Your task to perform on an android device: stop showing notifications on the lock screen Image 0: 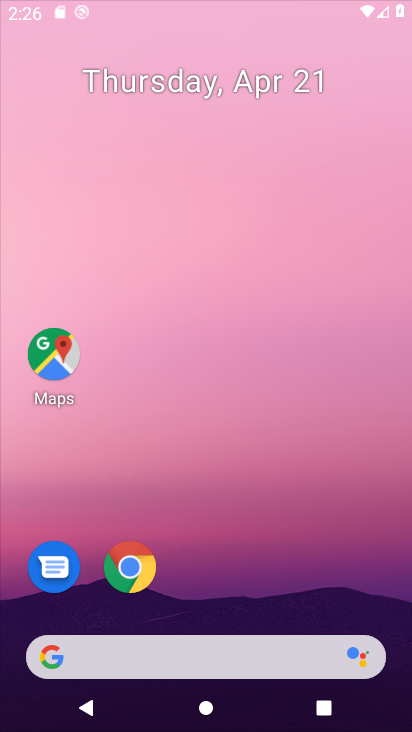
Step 0: drag from (197, 90) to (191, 56)
Your task to perform on an android device: stop showing notifications on the lock screen Image 1: 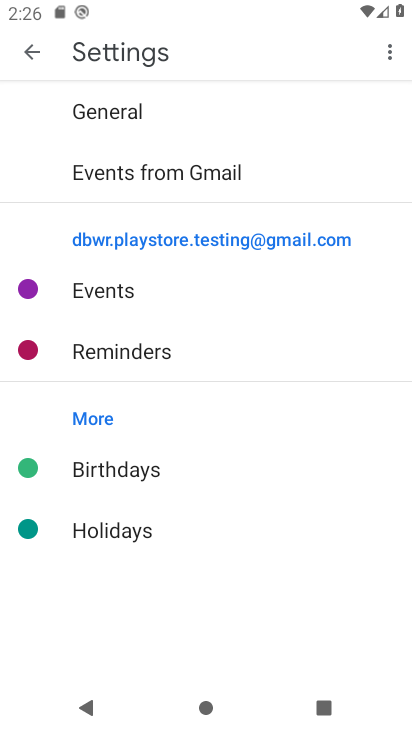
Step 1: press back button
Your task to perform on an android device: stop showing notifications on the lock screen Image 2: 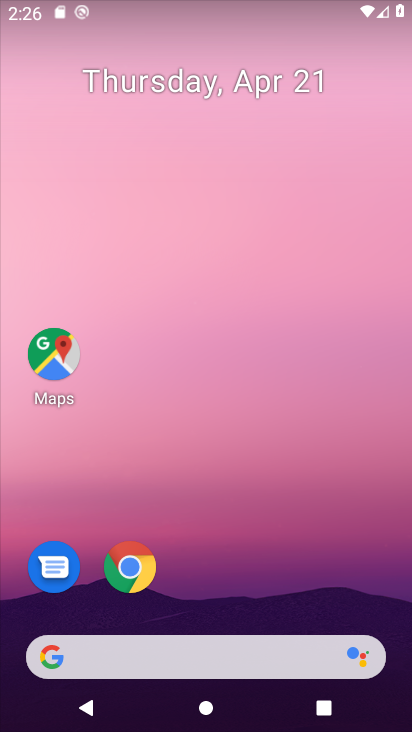
Step 2: drag from (318, 564) to (317, 12)
Your task to perform on an android device: stop showing notifications on the lock screen Image 3: 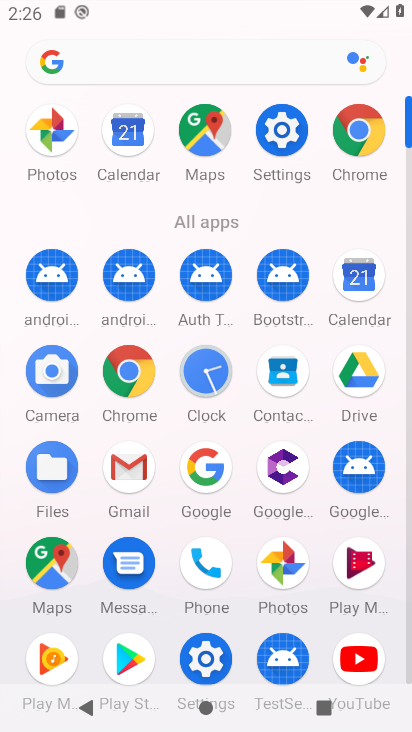
Step 3: drag from (1, 553) to (3, 268)
Your task to perform on an android device: stop showing notifications on the lock screen Image 4: 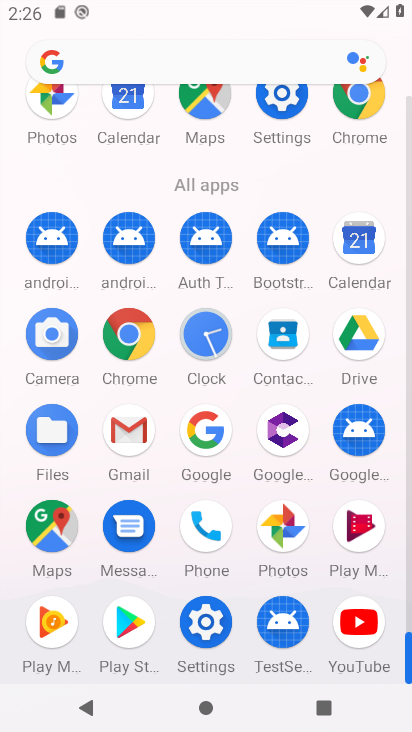
Step 4: drag from (19, 223) to (10, 419)
Your task to perform on an android device: stop showing notifications on the lock screen Image 5: 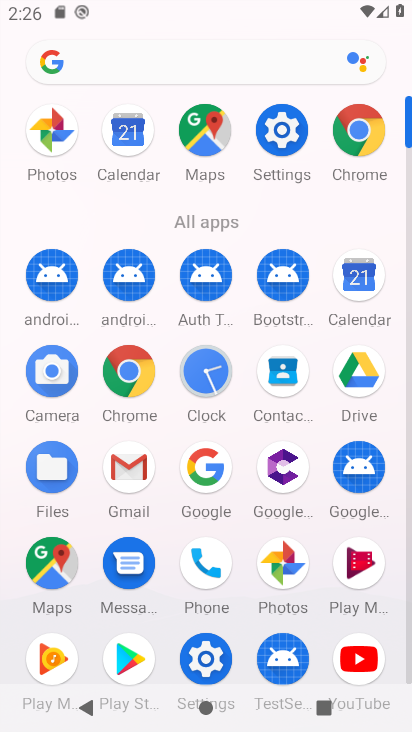
Step 5: drag from (11, 220) to (7, 434)
Your task to perform on an android device: stop showing notifications on the lock screen Image 6: 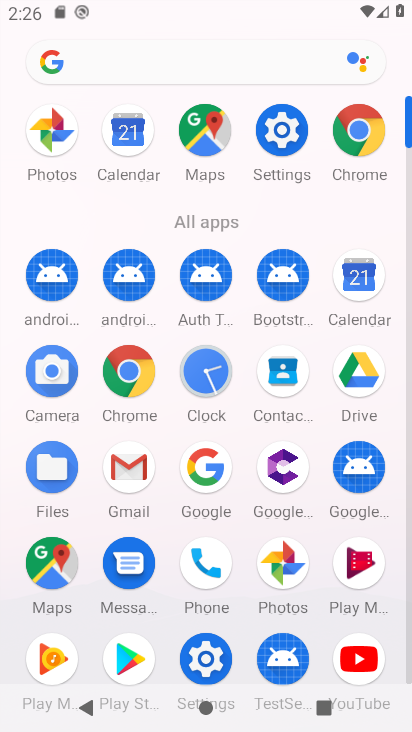
Step 6: click (205, 654)
Your task to perform on an android device: stop showing notifications on the lock screen Image 7: 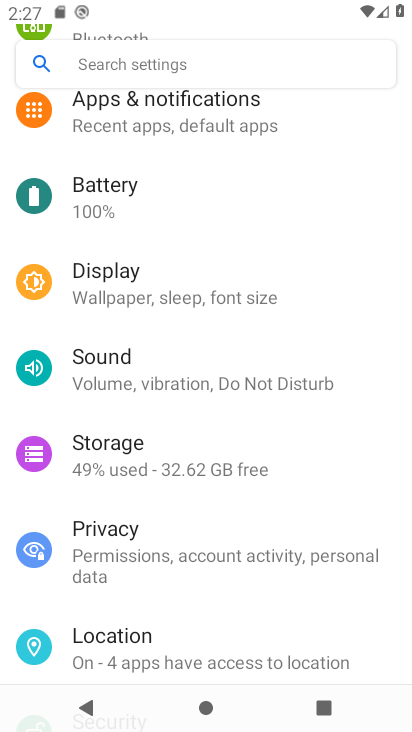
Step 7: click (158, 119)
Your task to perform on an android device: stop showing notifications on the lock screen Image 8: 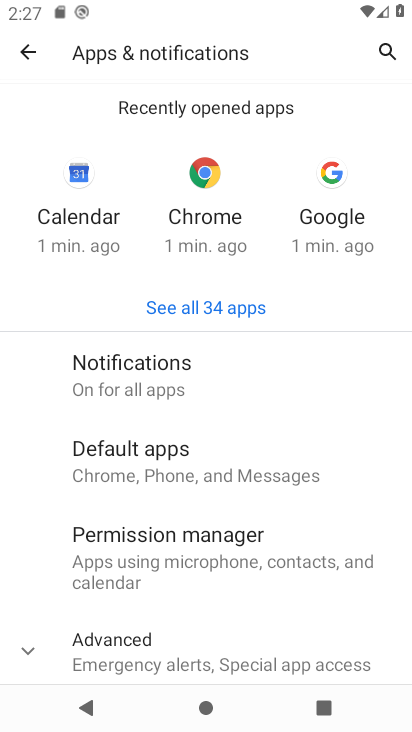
Step 8: click (200, 380)
Your task to perform on an android device: stop showing notifications on the lock screen Image 9: 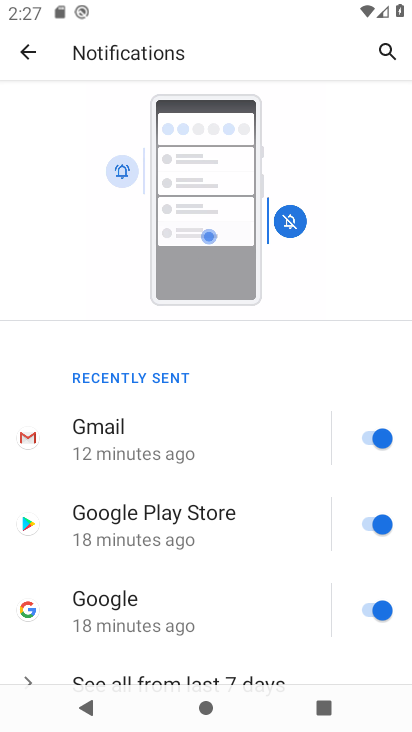
Step 9: drag from (211, 634) to (274, 160)
Your task to perform on an android device: stop showing notifications on the lock screen Image 10: 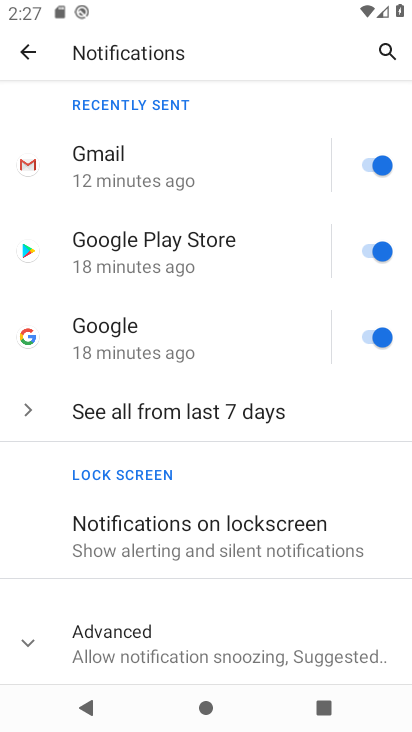
Step 10: click (121, 620)
Your task to perform on an android device: stop showing notifications on the lock screen Image 11: 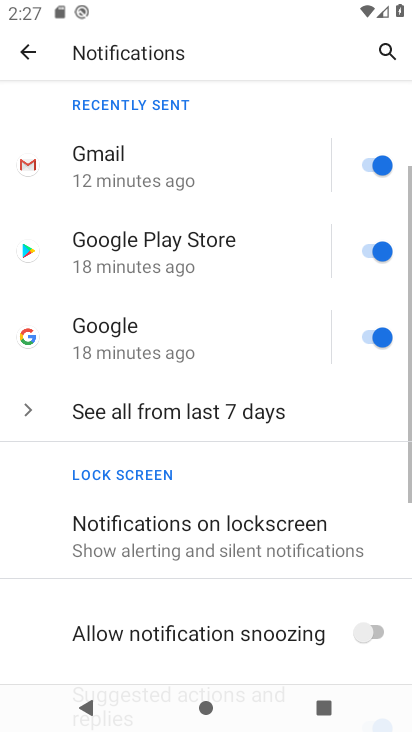
Step 11: drag from (202, 624) to (266, 191)
Your task to perform on an android device: stop showing notifications on the lock screen Image 12: 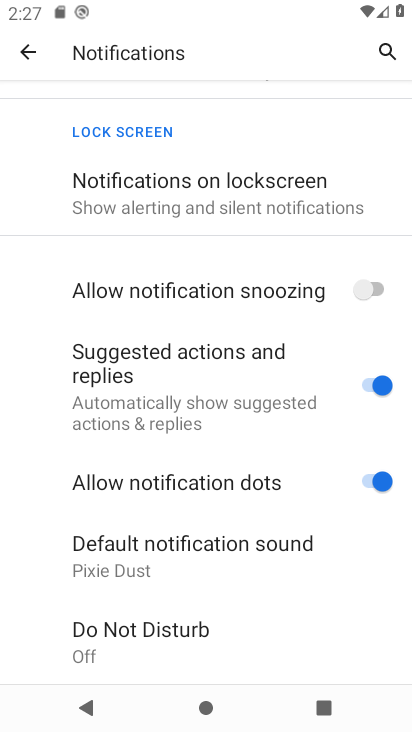
Step 12: click (256, 191)
Your task to perform on an android device: stop showing notifications on the lock screen Image 13: 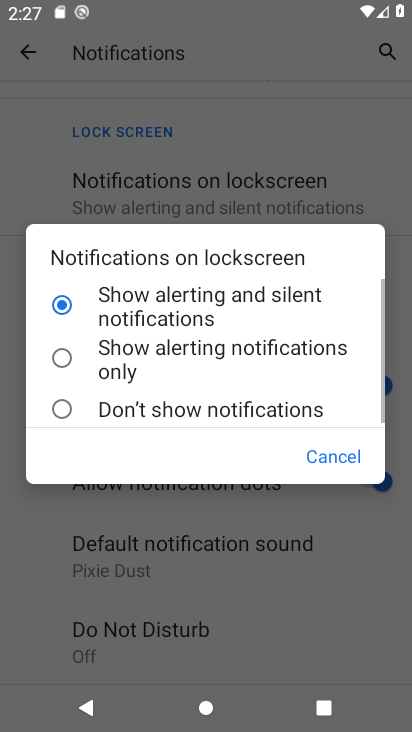
Step 13: click (194, 417)
Your task to perform on an android device: stop showing notifications on the lock screen Image 14: 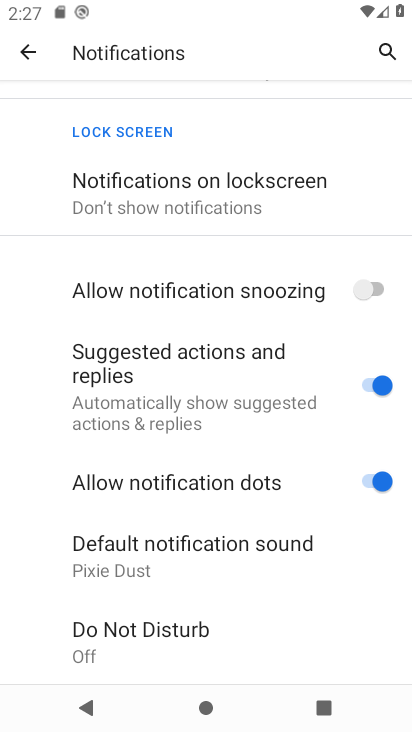
Step 14: task complete